Your task to perform on an android device: Toggle the flashlight Image 0: 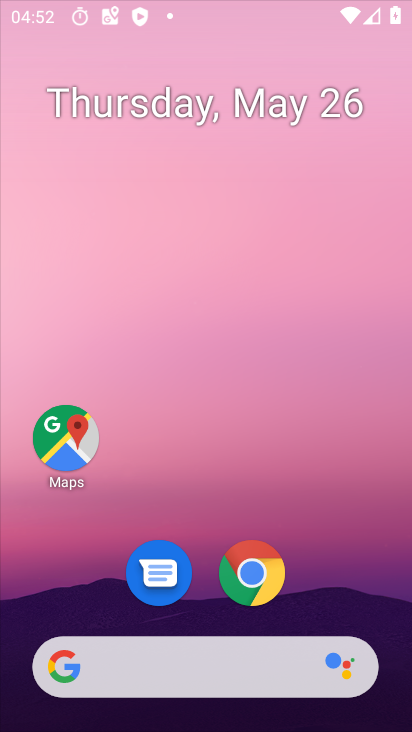
Step 0: drag from (300, 614) to (308, 32)
Your task to perform on an android device: Toggle the flashlight Image 1: 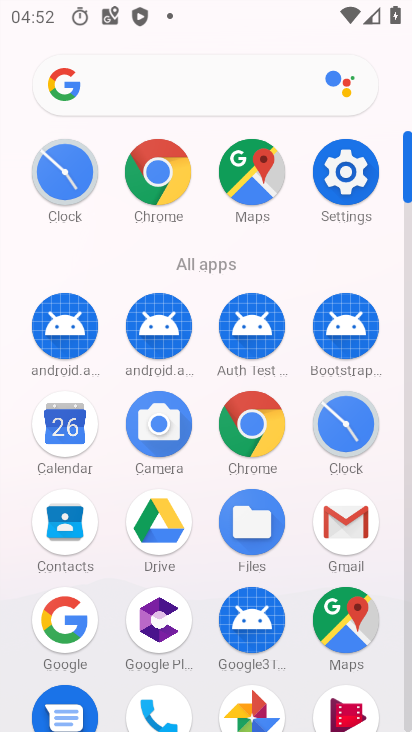
Step 1: task complete